Your task to perform on an android device: Open Wikipedia Image 0: 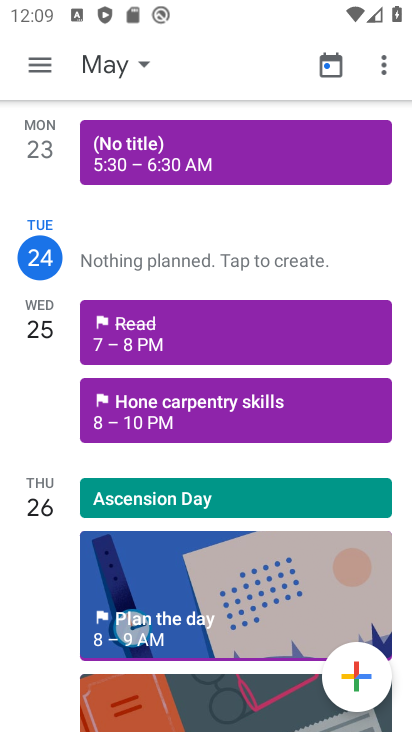
Step 0: press home button
Your task to perform on an android device: Open Wikipedia Image 1: 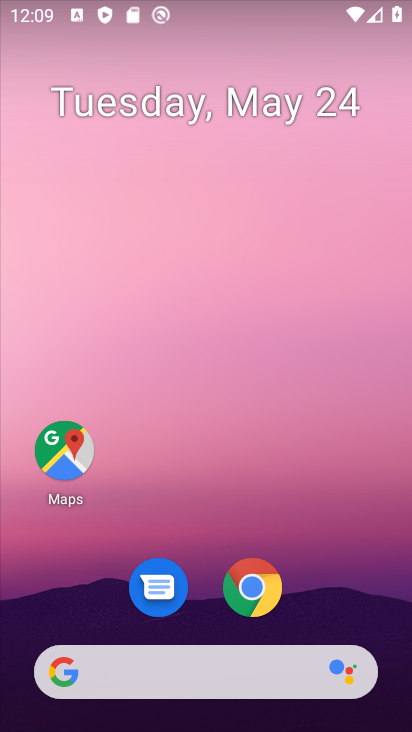
Step 1: click (237, 669)
Your task to perform on an android device: Open Wikipedia Image 2: 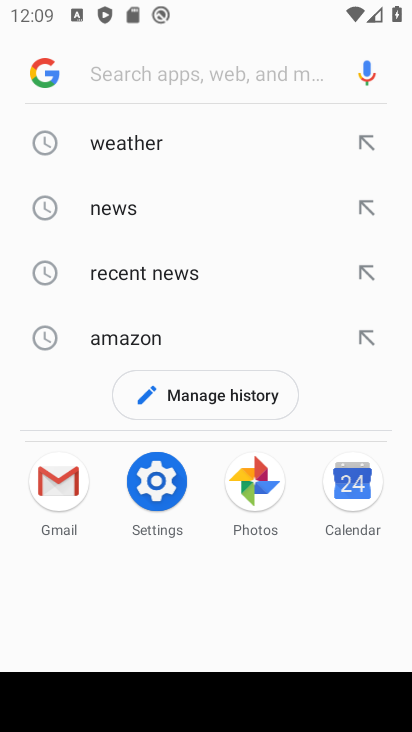
Step 2: type "wikipedia"
Your task to perform on an android device: Open Wikipedia Image 3: 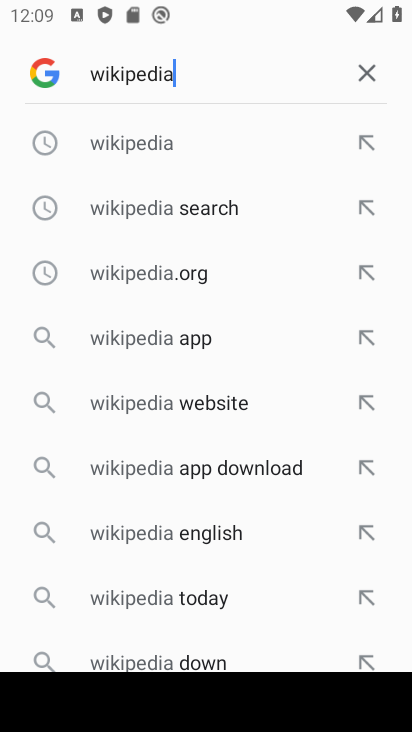
Step 3: click (159, 139)
Your task to perform on an android device: Open Wikipedia Image 4: 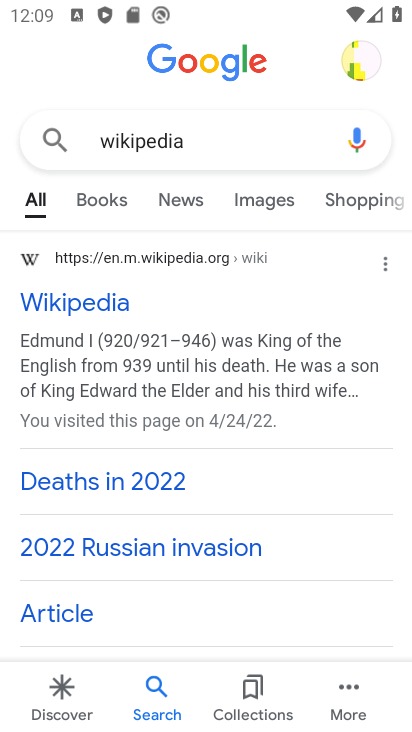
Step 4: click (174, 254)
Your task to perform on an android device: Open Wikipedia Image 5: 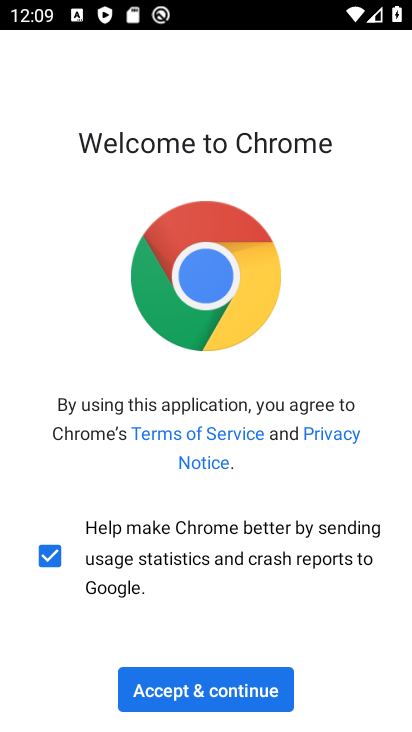
Step 5: click (234, 692)
Your task to perform on an android device: Open Wikipedia Image 6: 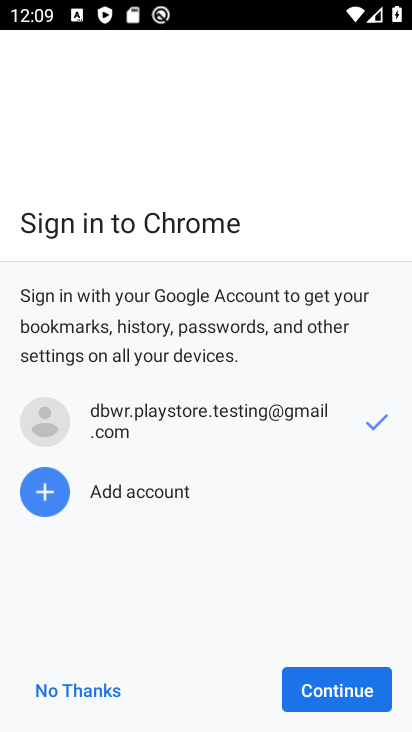
Step 6: click (340, 699)
Your task to perform on an android device: Open Wikipedia Image 7: 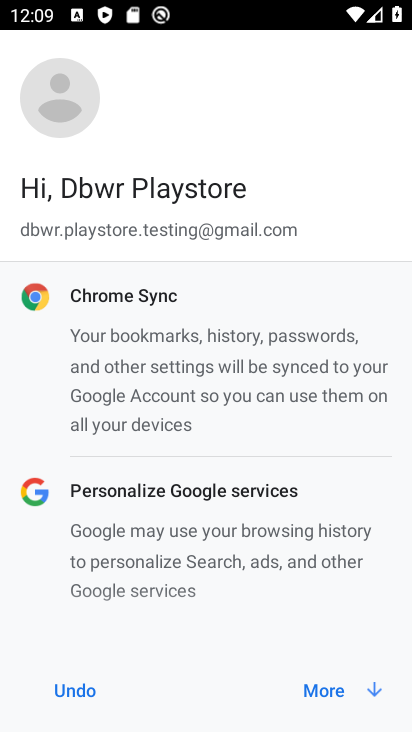
Step 7: click (343, 687)
Your task to perform on an android device: Open Wikipedia Image 8: 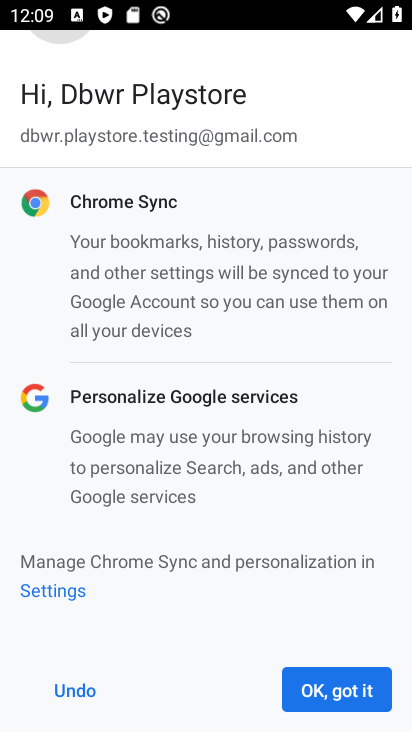
Step 8: click (343, 687)
Your task to perform on an android device: Open Wikipedia Image 9: 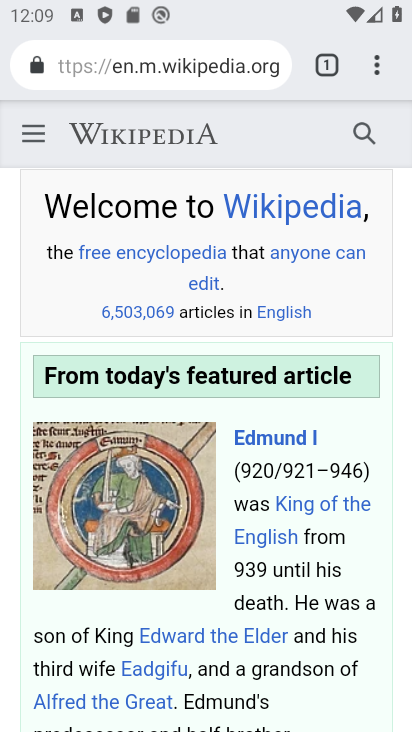
Step 9: task complete